Your task to perform on an android device: Turn off the flashlight Image 0: 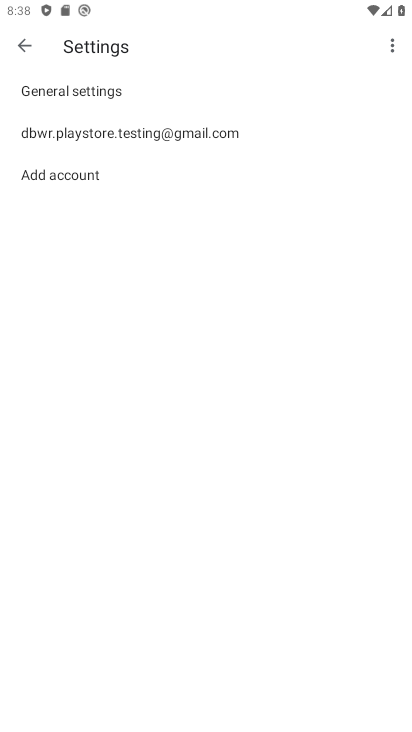
Step 0: press home button
Your task to perform on an android device: Turn off the flashlight Image 1: 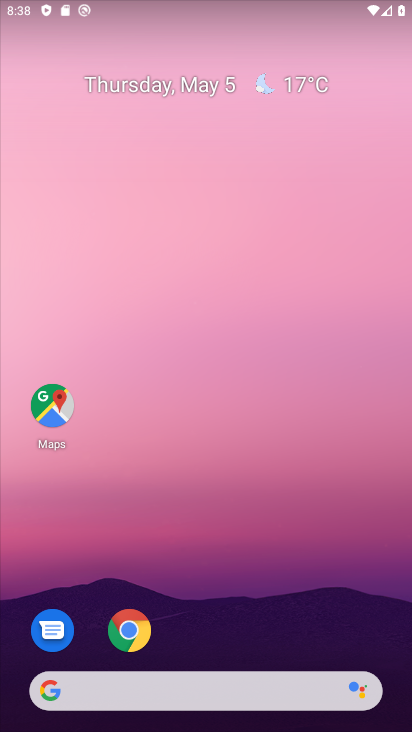
Step 1: drag from (209, 651) to (189, 24)
Your task to perform on an android device: Turn off the flashlight Image 2: 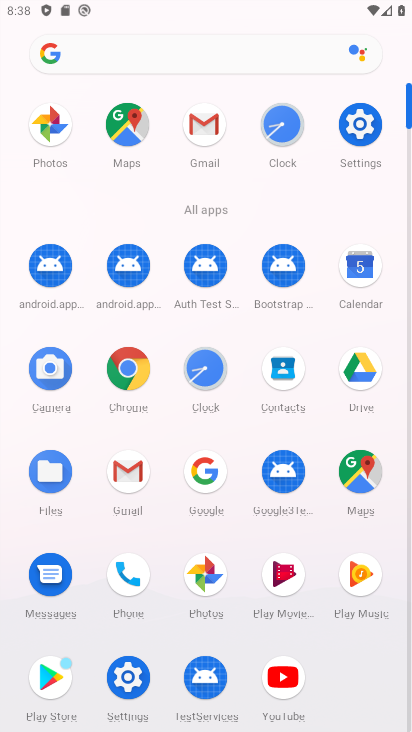
Step 2: click (356, 117)
Your task to perform on an android device: Turn off the flashlight Image 3: 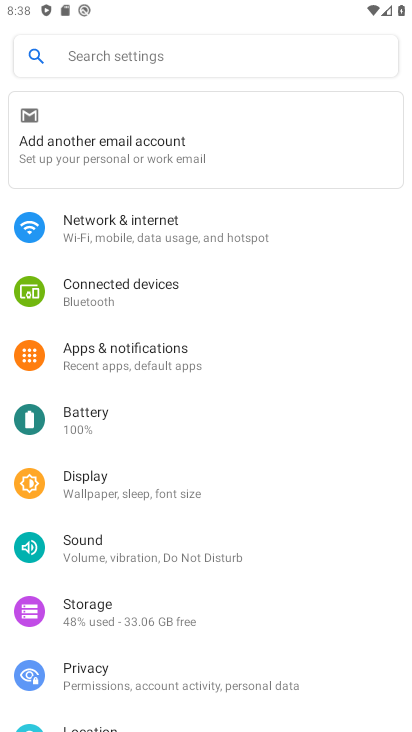
Step 3: click (105, 51)
Your task to perform on an android device: Turn off the flashlight Image 4: 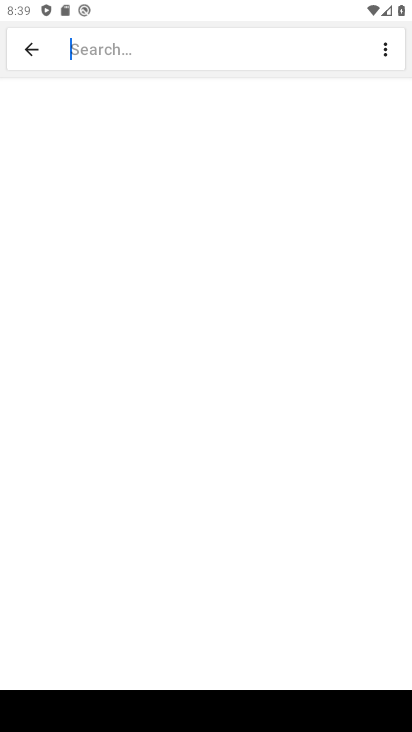
Step 4: type "flashlight"
Your task to perform on an android device: Turn off the flashlight Image 5: 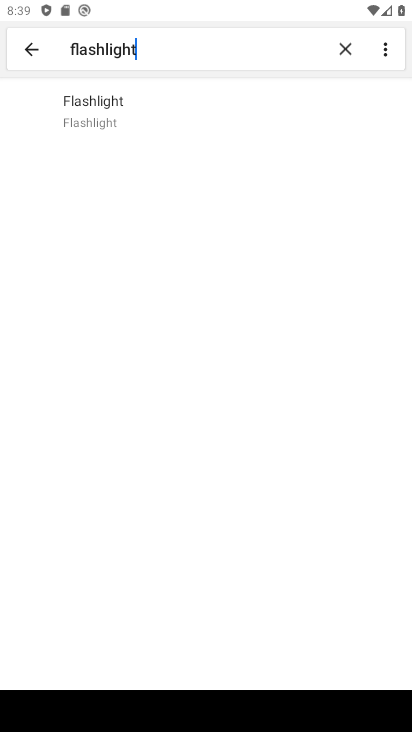
Step 5: click (106, 109)
Your task to perform on an android device: Turn off the flashlight Image 6: 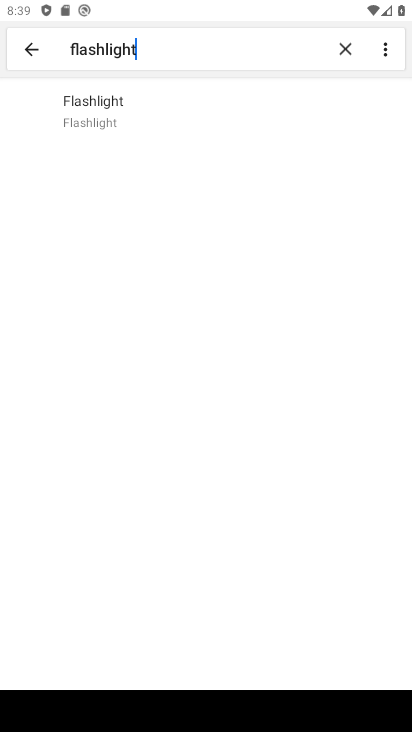
Step 6: click (123, 113)
Your task to perform on an android device: Turn off the flashlight Image 7: 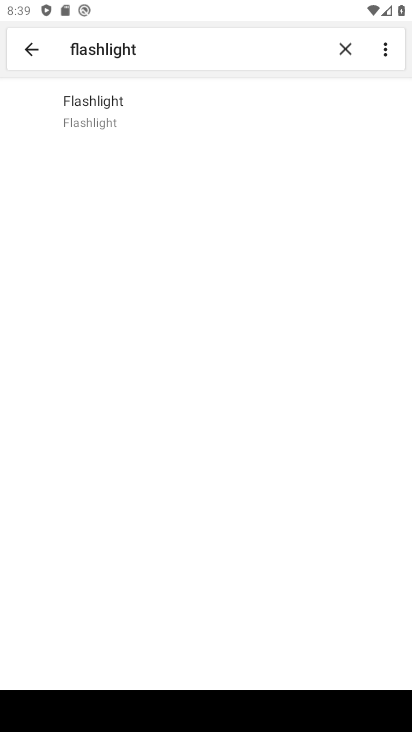
Step 7: click (132, 106)
Your task to perform on an android device: Turn off the flashlight Image 8: 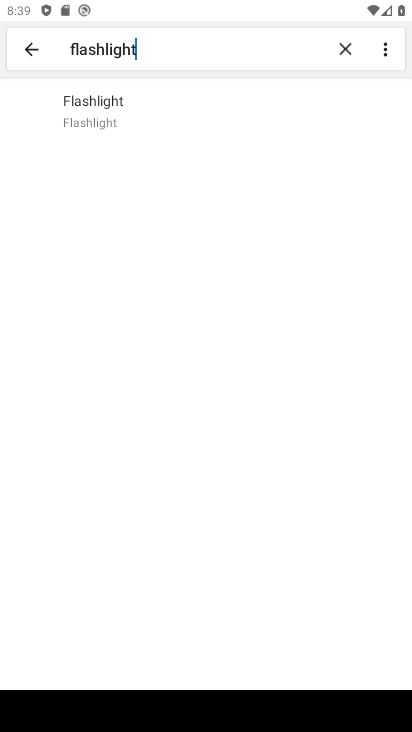
Step 8: click (133, 108)
Your task to perform on an android device: Turn off the flashlight Image 9: 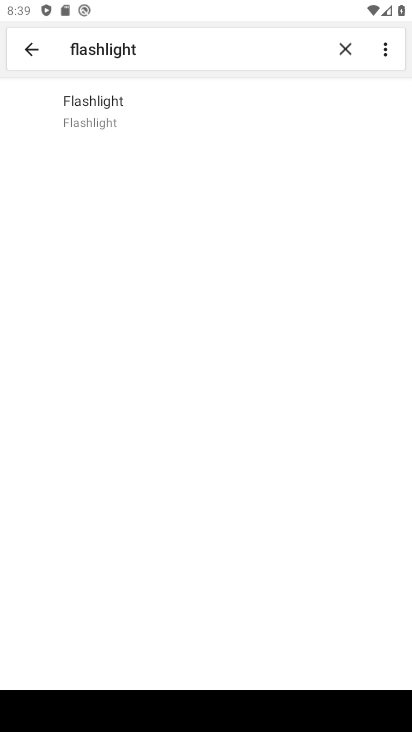
Step 9: task complete